Your task to perform on an android device: turn off notifications settings in the gmail app Image 0: 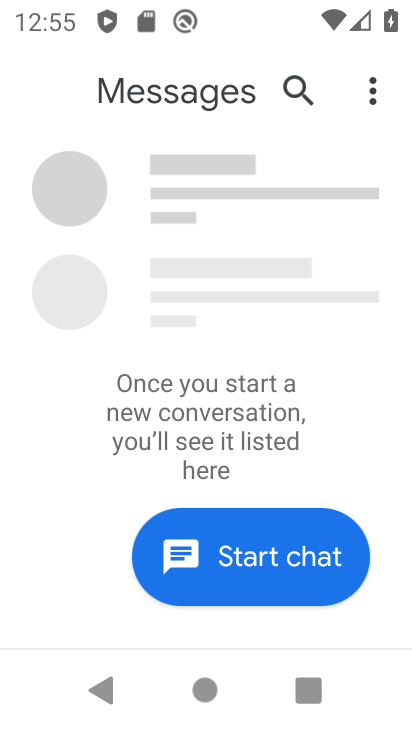
Step 0: press home button
Your task to perform on an android device: turn off notifications settings in the gmail app Image 1: 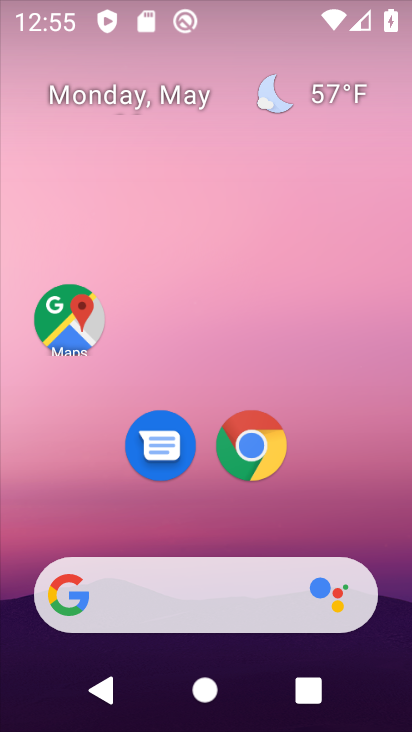
Step 1: drag from (375, 614) to (379, 43)
Your task to perform on an android device: turn off notifications settings in the gmail app Image 2: 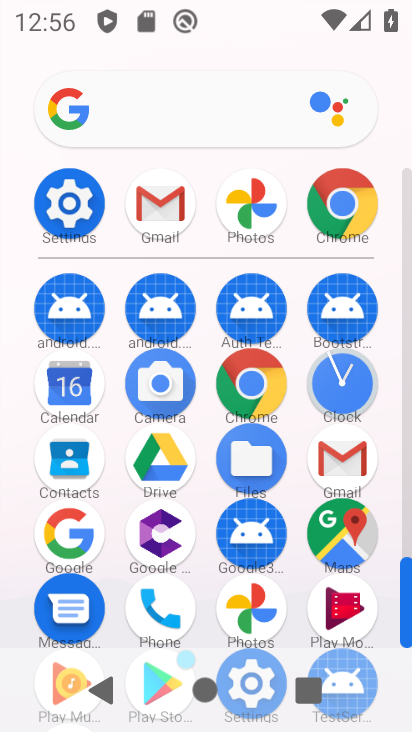
Step 2: click (341, 462)
Your task to perform on an android device: turn off notifications settings in the gmail app Image 3: 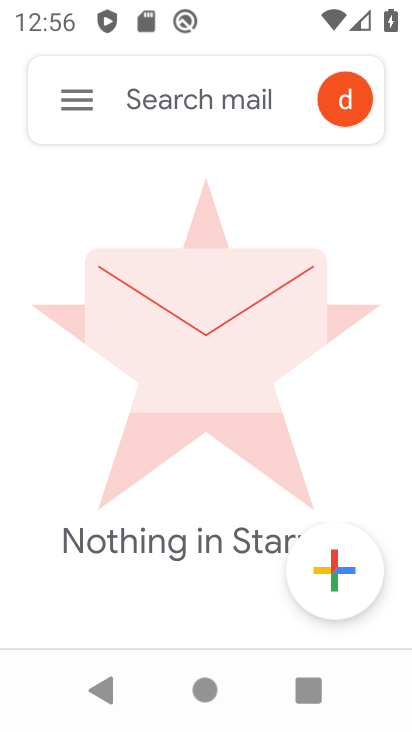
Step 3: click (58, 103)
Your task to perform on an android device: turn off notifications settings in the gmail app Image 4: 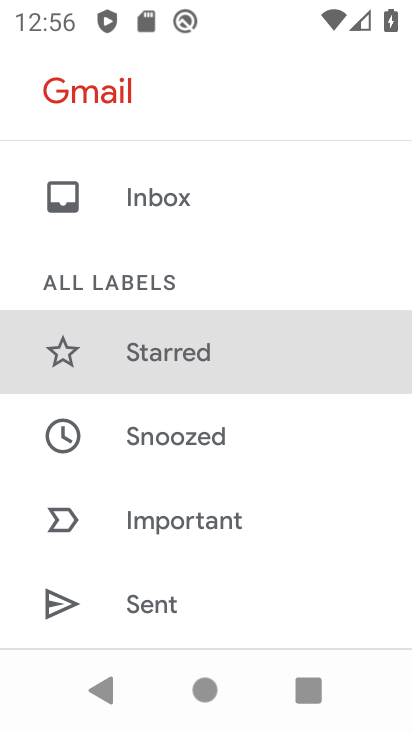
Step 4: drag from (144, 590) to (222, 171)
Your task to perform on an android device: turn off notifications settings in the gmail app Image 5: 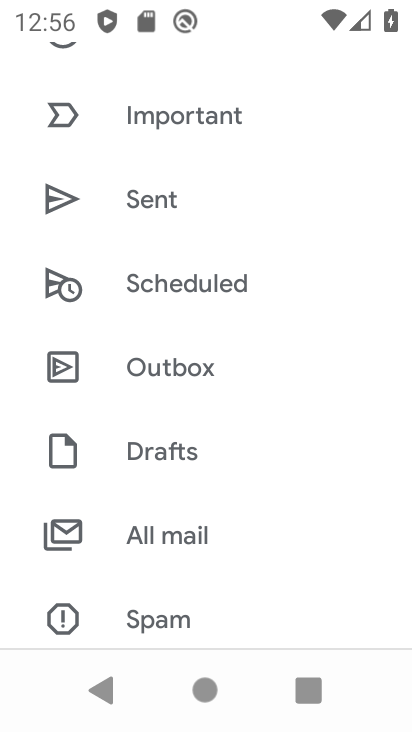
Step 5: drag from (180, 624) to (275, 232)
Your task to perform on an android device: turn off notifications settings in the gmail app Image 6: 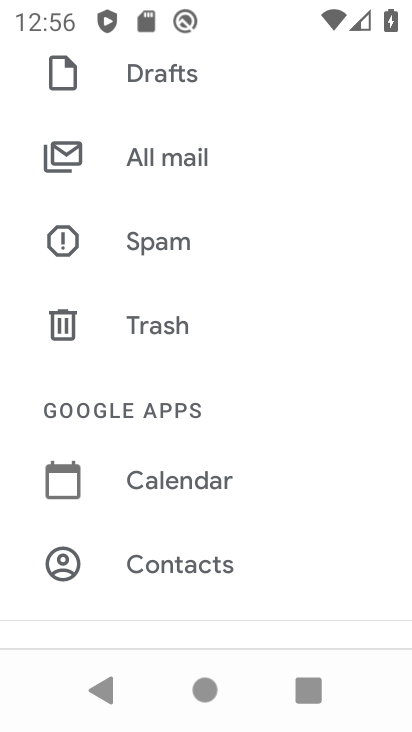
Step 6: drag from (200, 591) to (258, 299)
Your task to perform on an android device: turn off notifications settings in the gmail app Image 7: 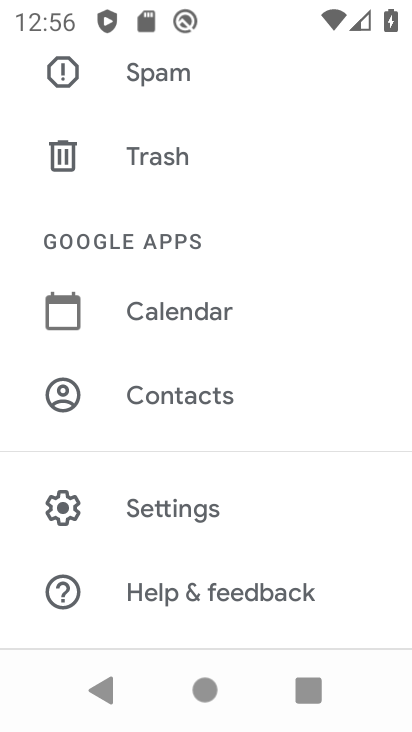
Step 7: click (229, 510)
Your task to perform on an android device: turn off notifications settings in the gmail app Image 8: 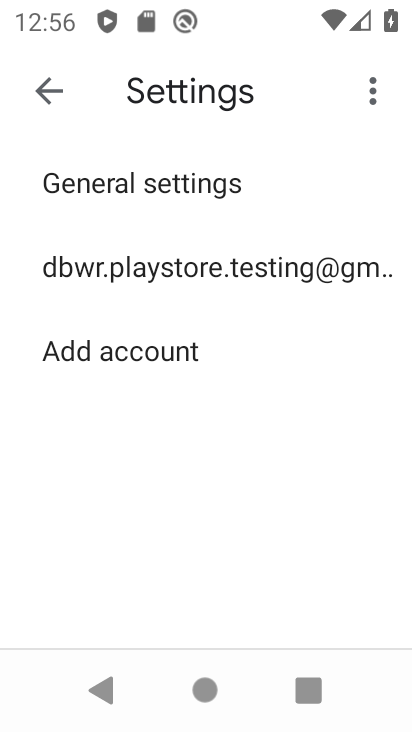
Step 8: click (281, 263)
Your task to perform on an android device: turn off notifications settings in the gmail app Image 9: 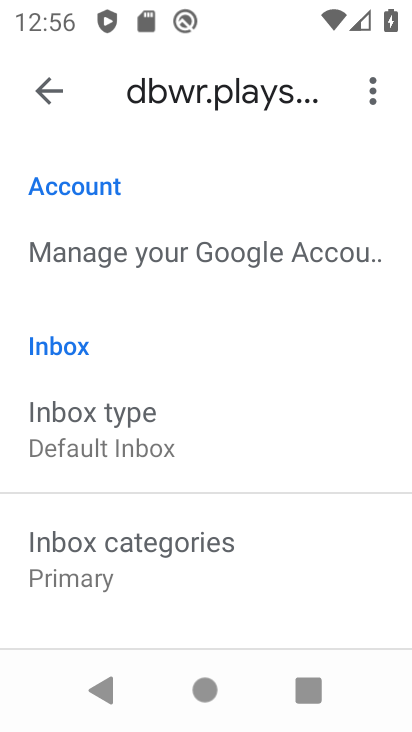
Step 9: drag from (189, 581) to (287, 233)
Your task to perform on an android device: turn off notifications settings in the gmail app Image 10: 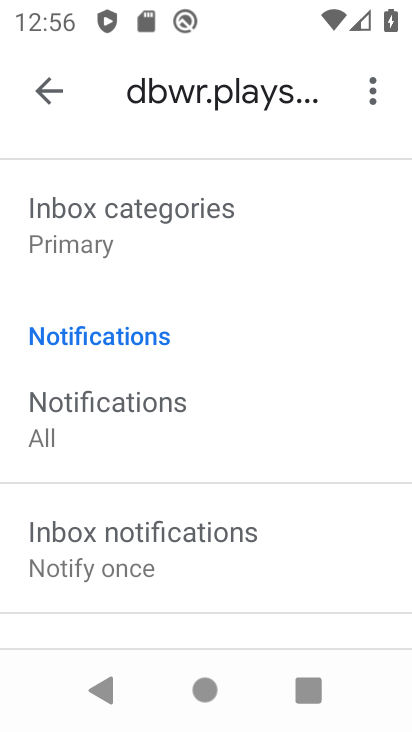
Step 10: click (152, 451)
Your task to perform on an android device: turn off notifications settings in the gmail app Image 11: 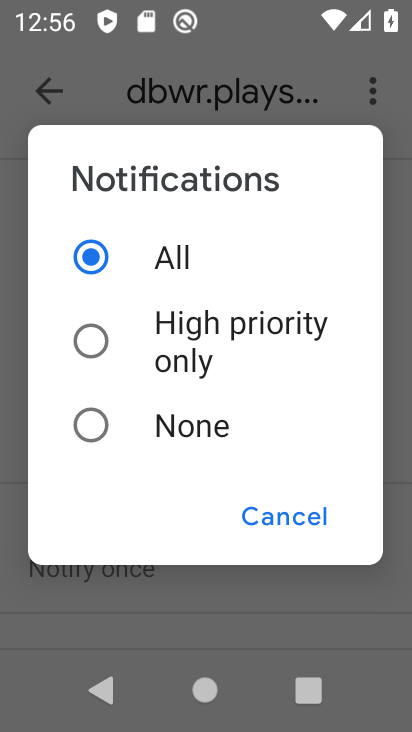
Step 11: click (170, 426)
Your task to perform on an android device: turn off notifications settings in the gmail app Image 12: 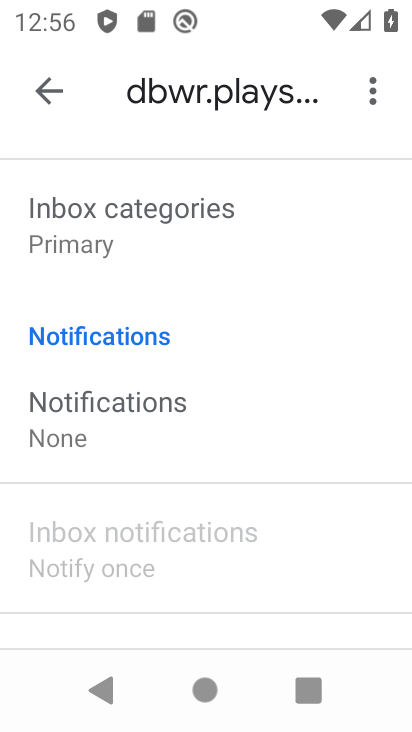
Step 12: task complete